Your task to perform on an android device: Open the stopwatch Image 0: 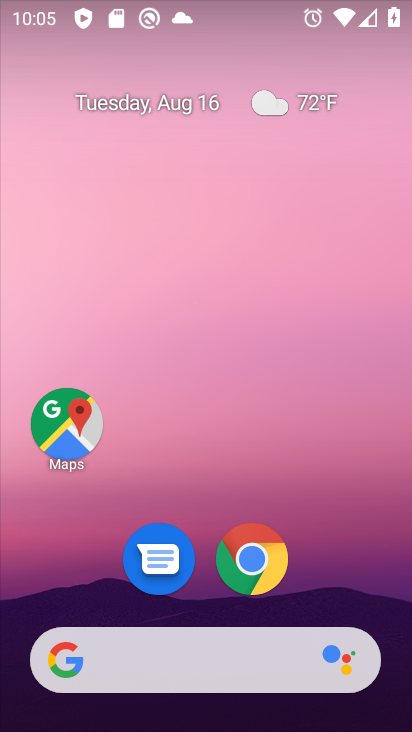
Step 0: drag from (181, 674) to (247, 80)
Your task to perform on an android device: Open the stopwatch Image 1: 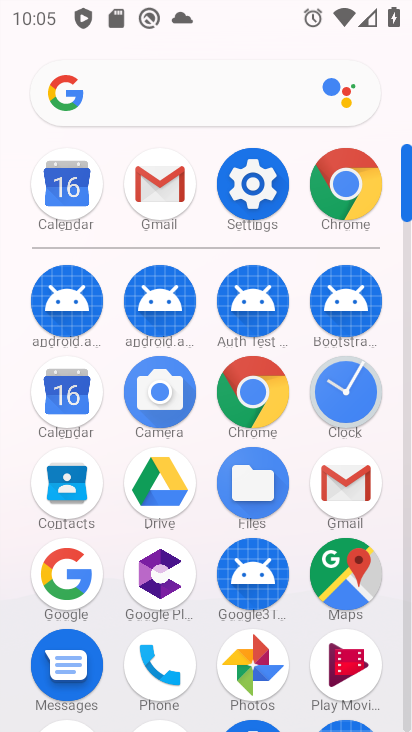
Step 1: click (347, 396)
Your task to perform on an android device: Open the stopwatch Image 2: 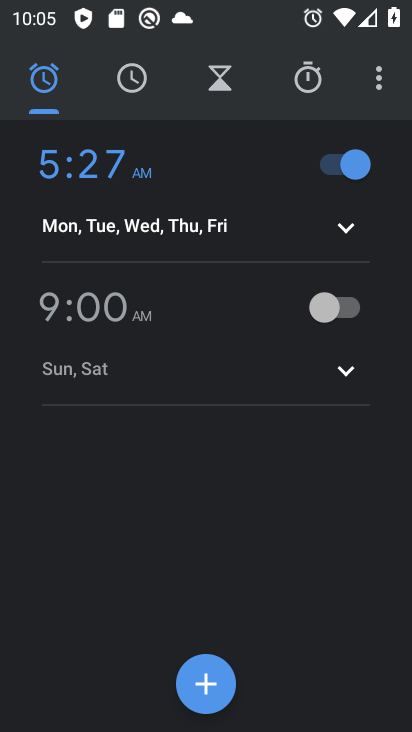
Step 2: click (308, 87)
Your task to perform on an android device: Open the stopwatch Image 3: 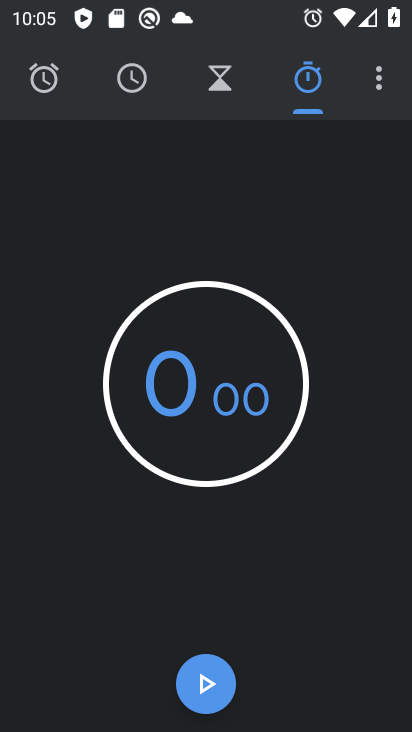
Step 3: task complete